Your task to perform on an android device: empty trash in google photos Image 0: 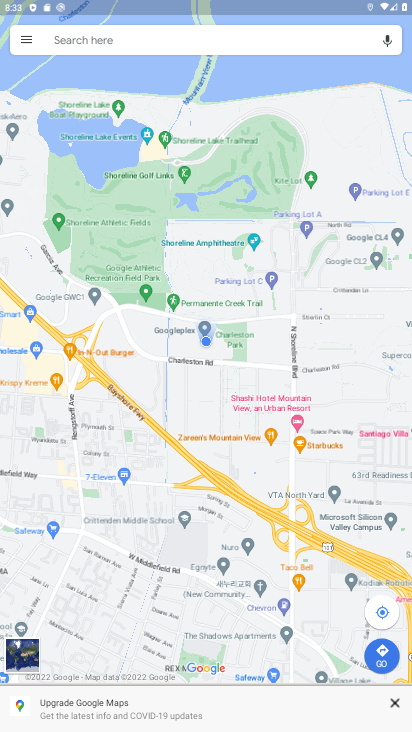
Step 0: press home button
Your task to perform on an android device: empty trash in google photos Image 1: 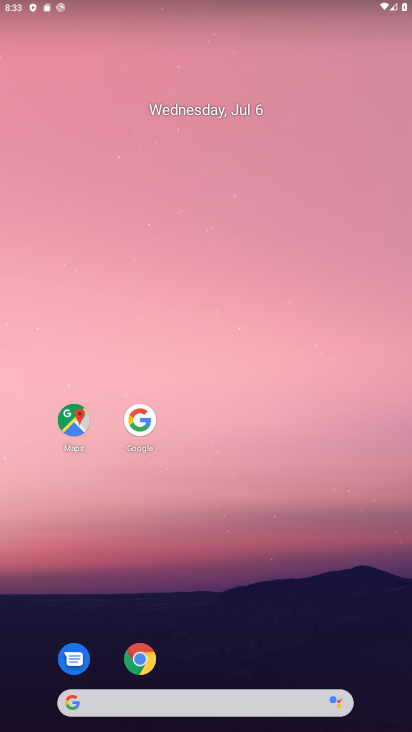
Step 1: drag from (220, 651) to (191, 115)
Your task to perform on an android device: empty trash in google photos Image 2: 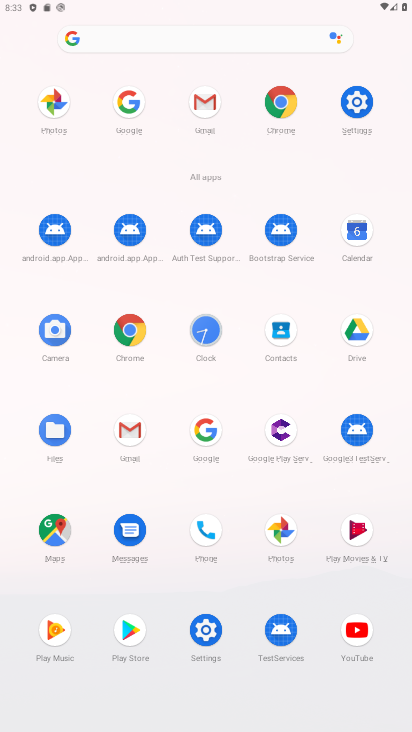
Step 2: click (278, 519)
Your task to perform on an android device: empty trash in google photos Image 3: 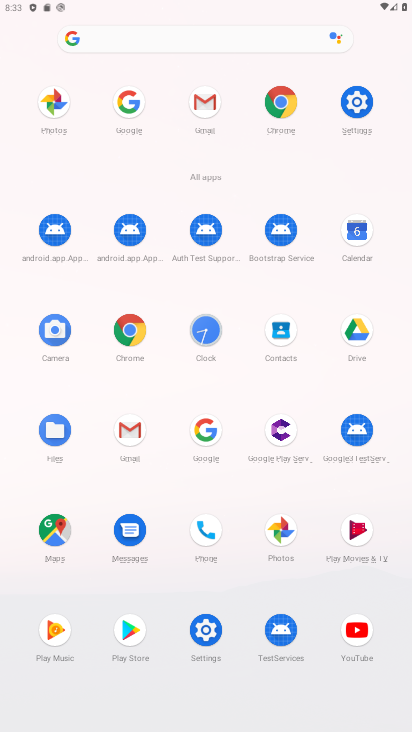
Step 3: click (281, 531)
Your task to perform on an android device: empty trash in google photos Image 4: 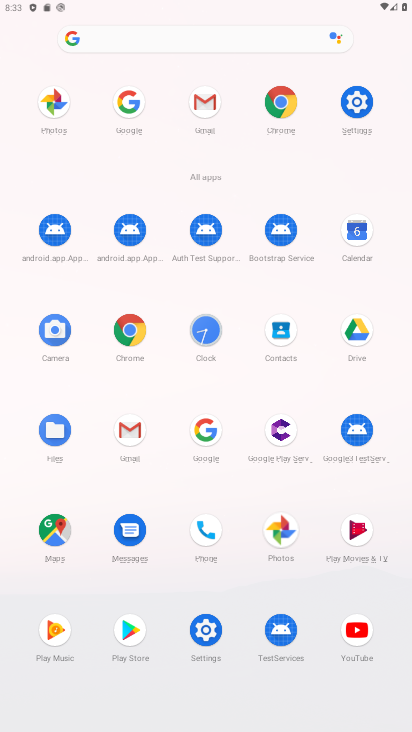
Step 4: click (281, 531)
Your task to perform on an android device: empty trash in google photos Image 5: 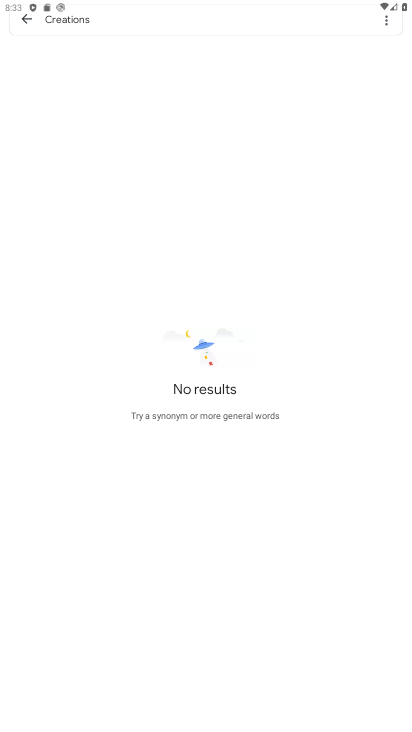
Step 5: press back button
Your task to perform on an android device: empty trash in google photos Image 6: 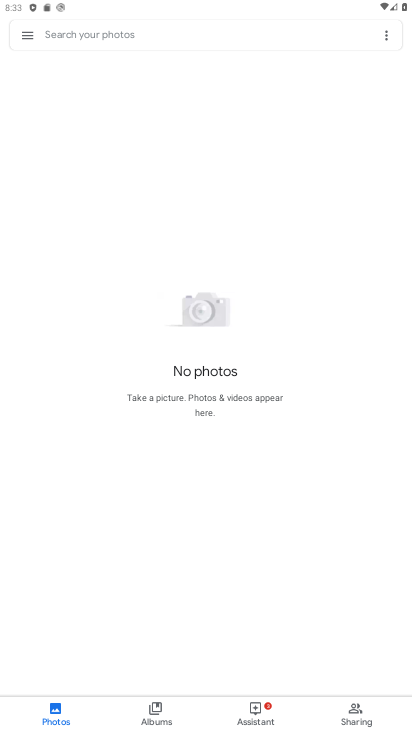
Step 6: click (22, 34)
Your task to perform on an android device: empty trash in google photos Image 7: 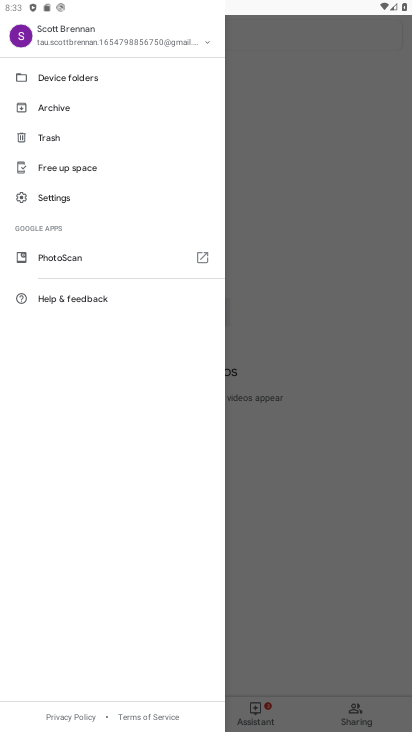
Step 7: click (55, 134)
Your task to perform on an android device: empty trash in google photos Image 8: 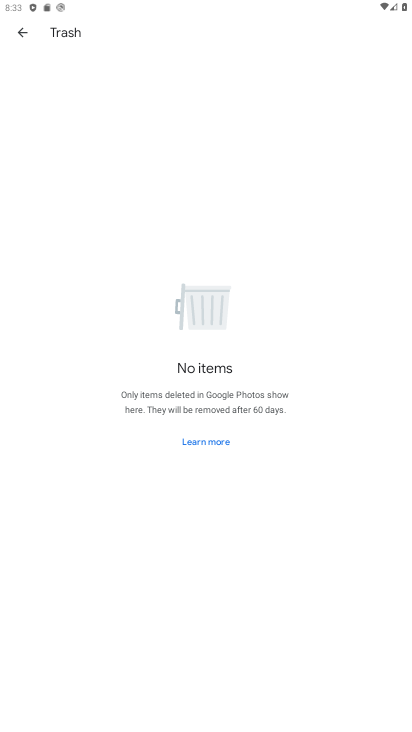
Step 8: task complete